Your task to perform on an android device: add a contact Image 0: 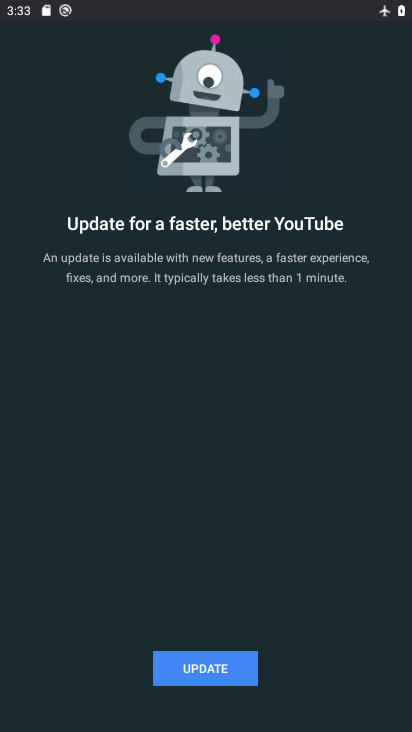
Step 0: drag from (309, 345) to (309, 208)
Your task to perform on an android device: add a contact Image 1: 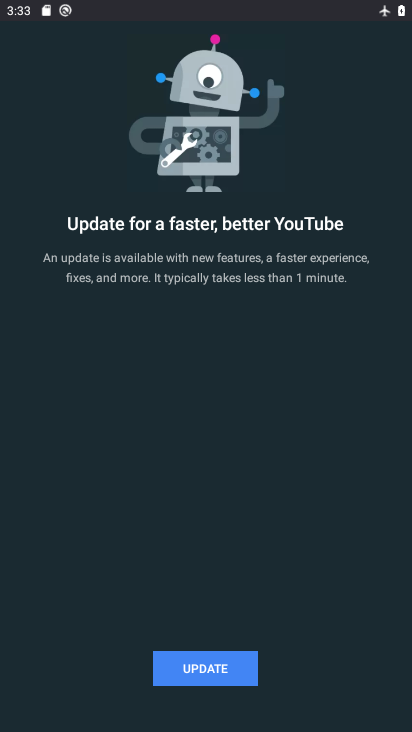
Step 1: drag from (273, 407) to (329, 284)
Your task to perform on an android device: add a contact Image 2: 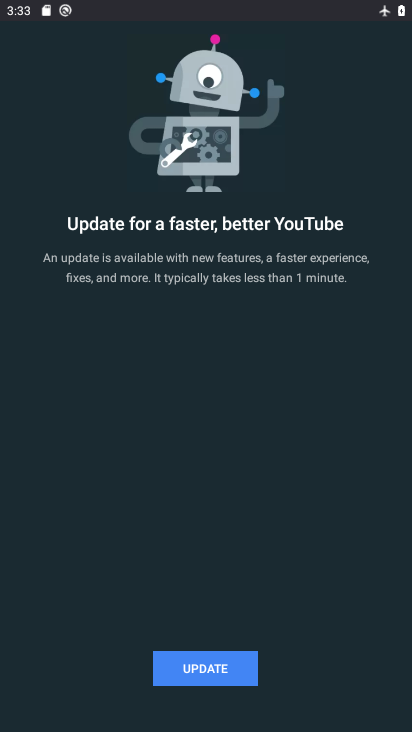
Step 2: press home button
Your task to perform on an android device: add a contact Image 3: 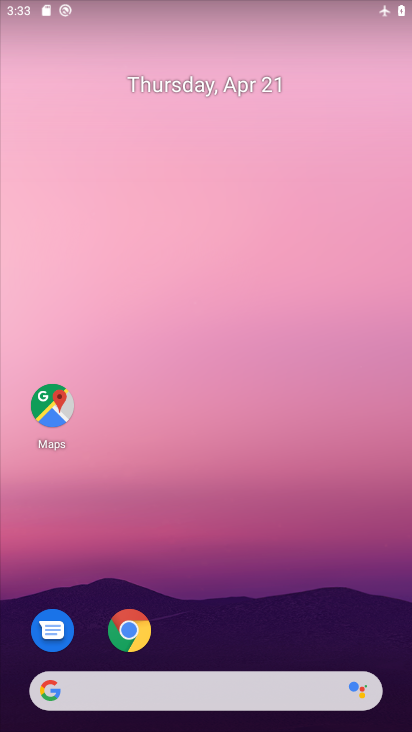
Step 3: drag from (208, 515) to (278, 44)
Your task to perform on an android device: add a contact Image 4: 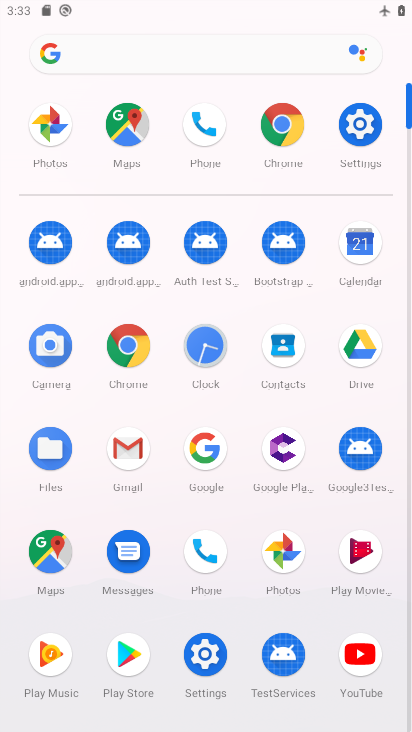
Step 4: click (291, 342)
Your task to perform on an android device: add a contact Image 5: 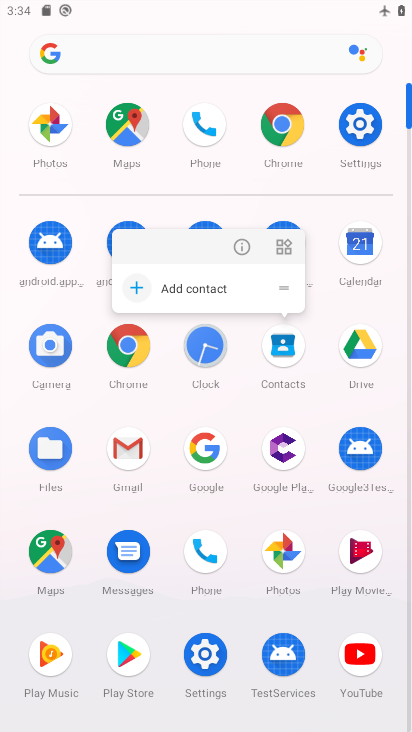
Step 5: click (249, 251)
Your task to perform on an android device: add a contact Image 6: 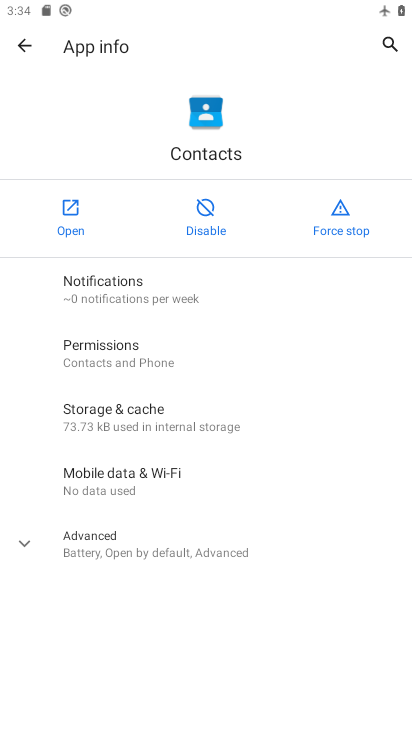
Step 6: click (93, 215)
Your task to perform on an android device: add a contact Image 7: 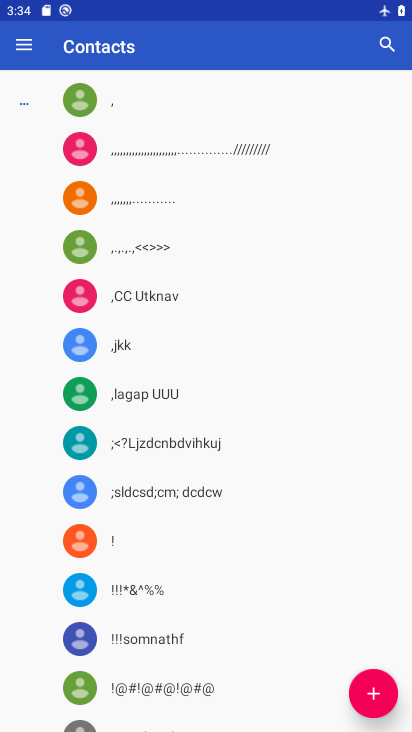
Step 7: click (368, 690)
Your task to perform on an android device: add a contact Image 8: 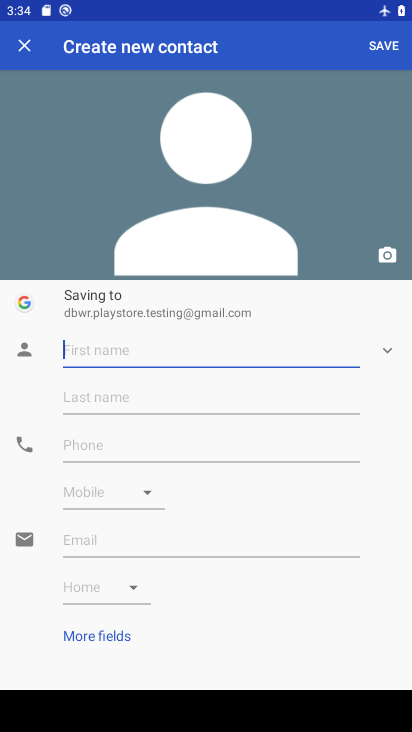
Step 8: type "mjky"
Your task to perform on an android device: add a contact Image 9: 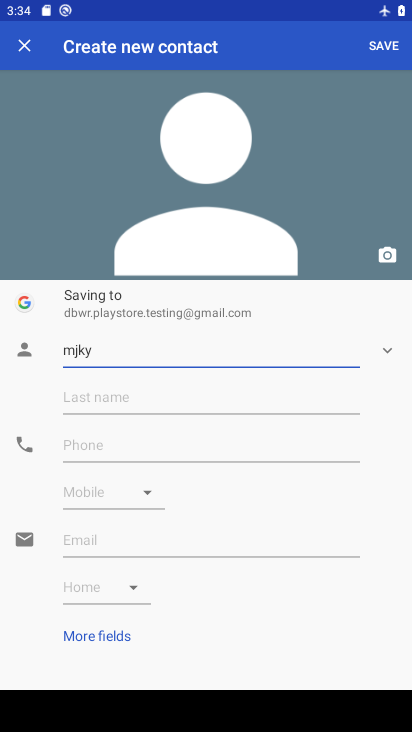
Step 9: click (386, 38)
Your task to perform on an android device: add a contact Image 10: 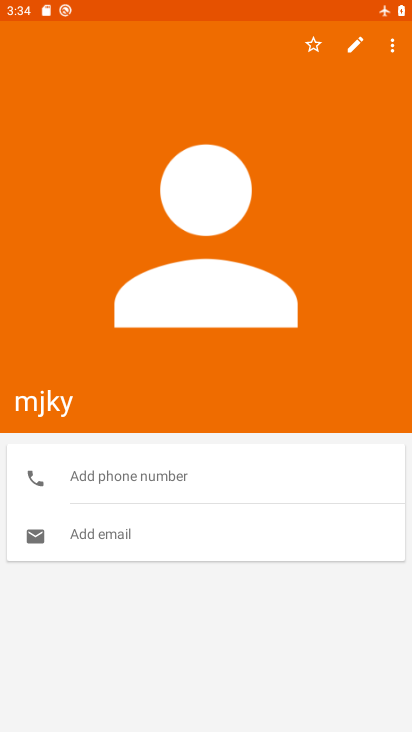
Step 10: task complete